Your task to perform on an android device: Open calendar and show me the second week of next month Image 0: 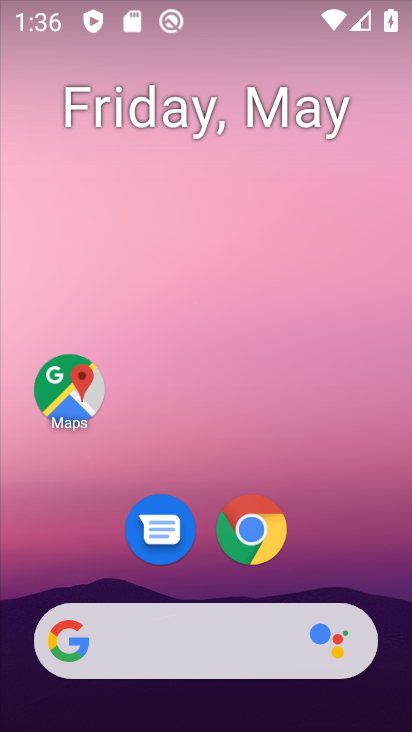
Step 0: drag from (200, 475) to (227, 81)
Your task to perform on an android device: Open calendar and show me the second week of next month Image 1: 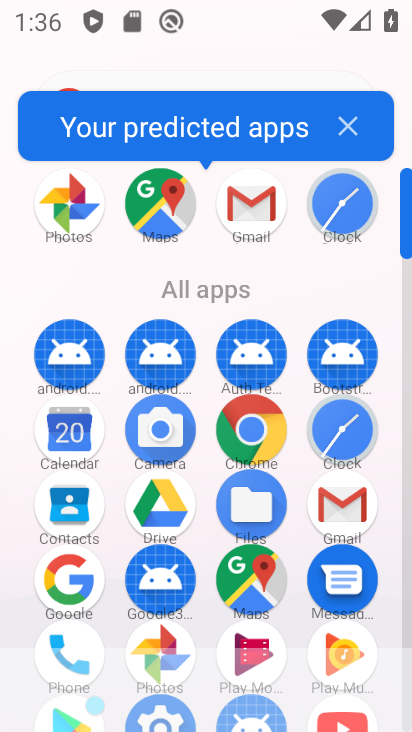
Step 1: click (65, 424)
Your task to perform on an android device: Open calendar and show me the second week of next month Image 2: 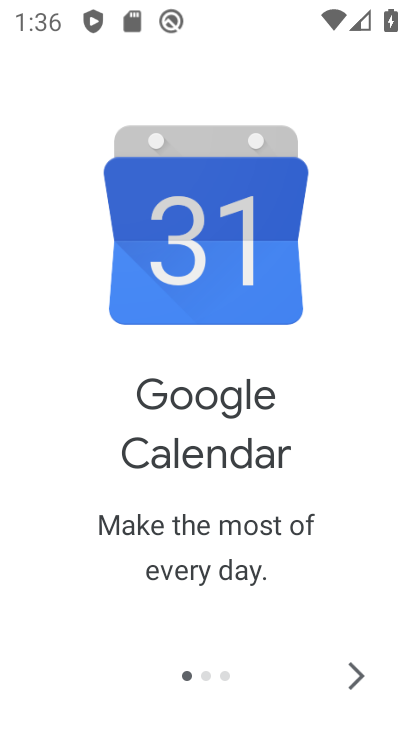
Step 2: click (349, 684)
Your task to perform on an android device: Open calendar and show me the second week of next month Image 3: 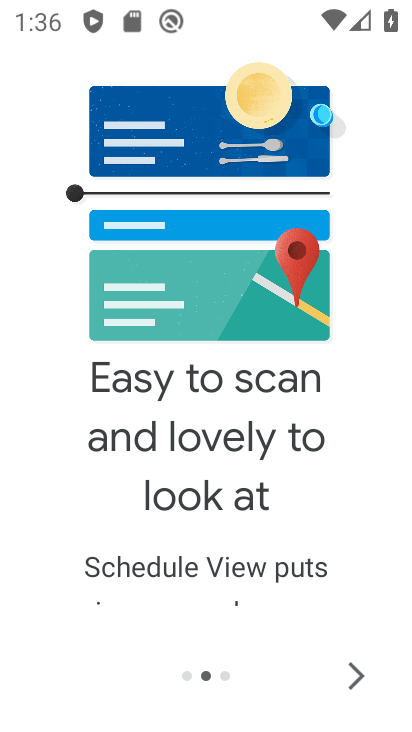
Step 3: click (350, 683)
Your task to perform on an android device: Open calendar and show me the second week of next month Image 4: 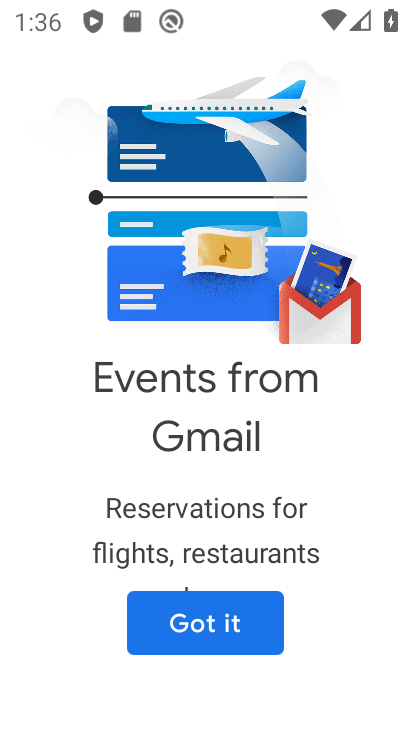
Step 4: click (207, 625)
Your task to perform on an android device: Open calendar and show me the second week of next month Image 5: 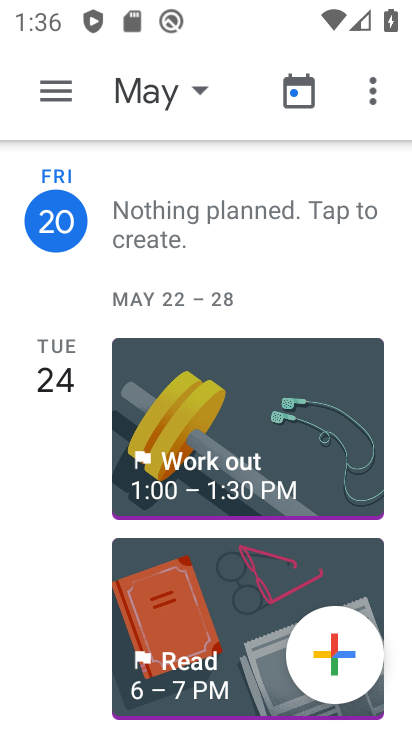
Step 5: click (192, 92)
Your task to perform on an android device: Open calendar and show me the second week of next month Image 6: 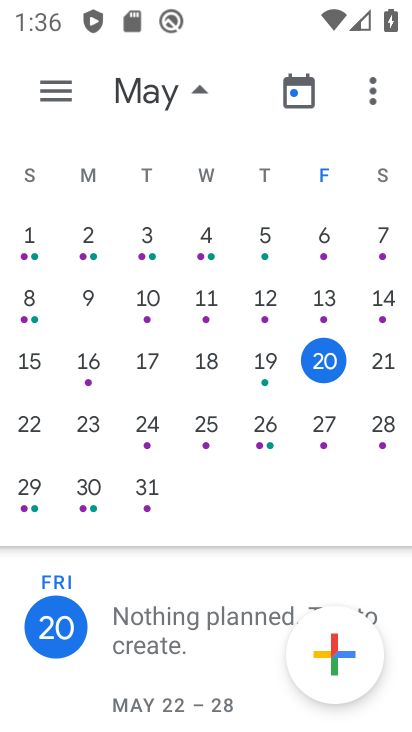
Step 6: drag from (388, 496) to (1, 479)
Your task to perform on an android device: Open calendar and show me the second week of next month Image 7: 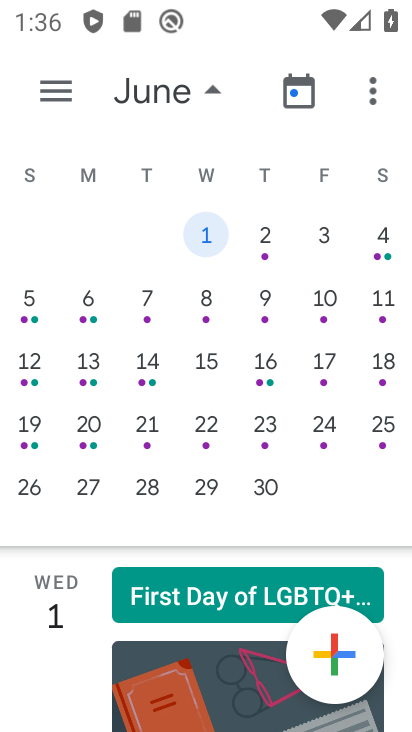
Step 7: click (217, 300)
Your task to perform on an android device: Open calendar and show me the second week of next month Image 8: 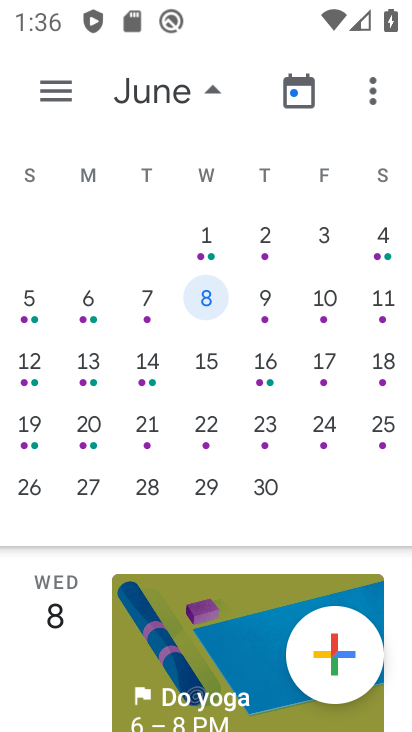
Step 8: task complete